Your task to perform on an android device: move an email to a new category in the gmail app Image 0: 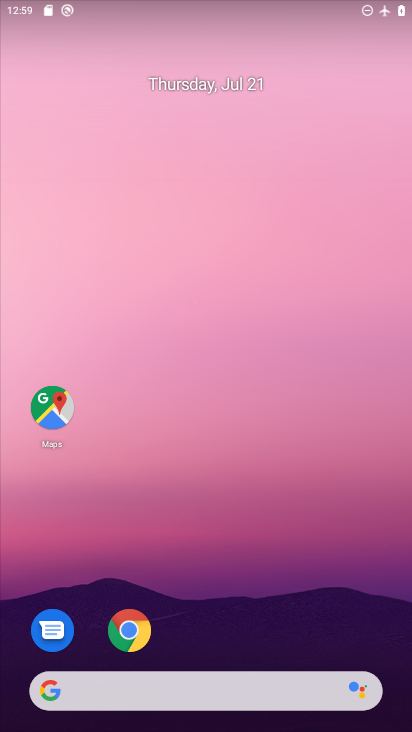
Step 0: drag from (403, 700) to (388, 67)
Your task to perform on an android device: move an email to a new category in the gmail app Image 1: 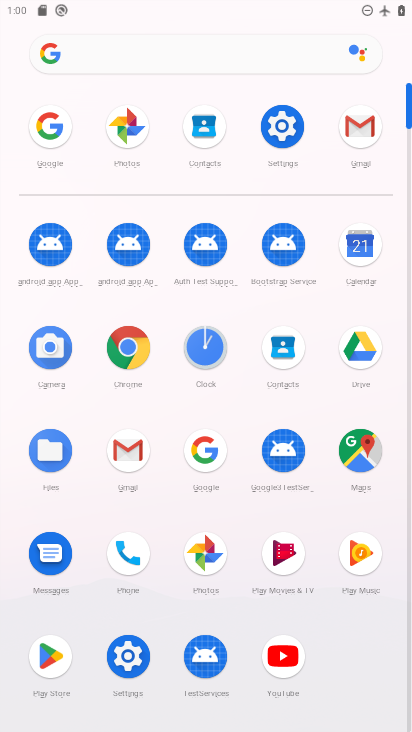
Step 1: click (121, 456)
Your task to perform on an android device: move an email to a new category in the gmail app Image 2: 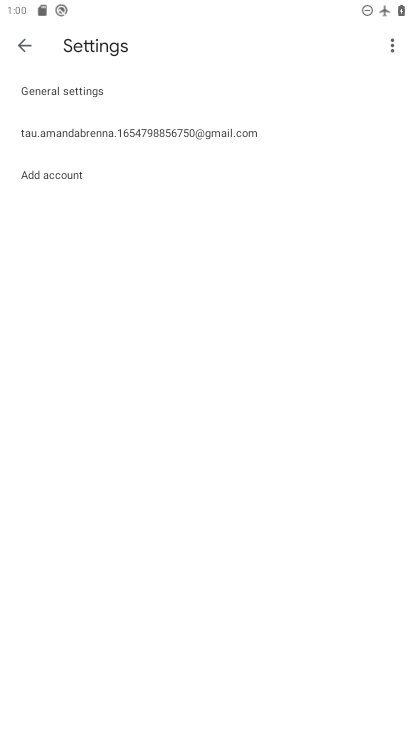
Step 2: click (150, 131)
Your task to perform on an android device: move an email to a new category in the gmail app Image 3: 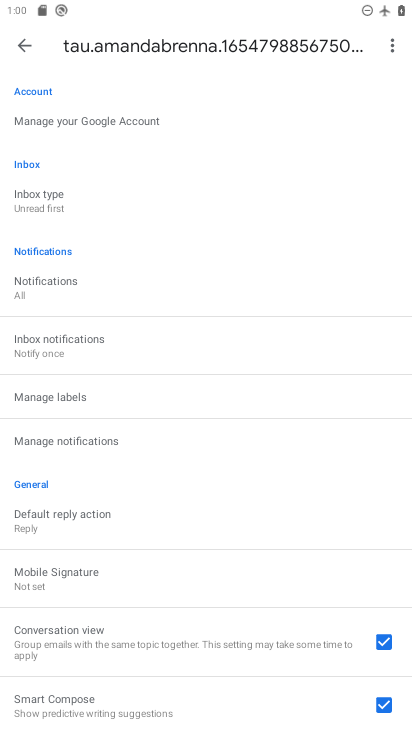
Step 3: click (29, 42)
Your task to perform on an android device: move an email to a new category in the gmail app Image 4: 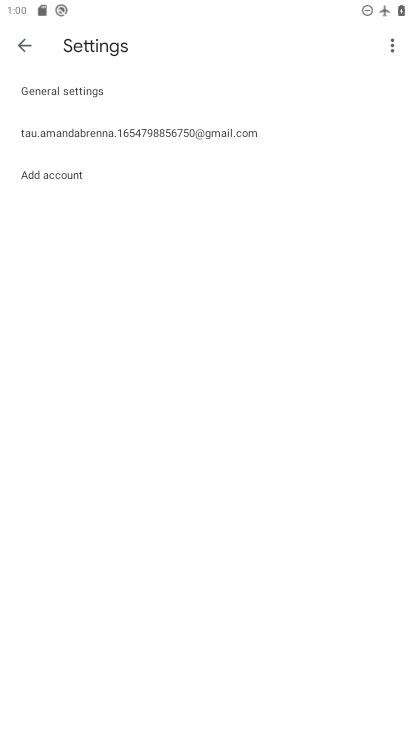
Step 4: click (29, 42)
Your task to perform on an android device: move an email to a new category in the gmail app Image 5: 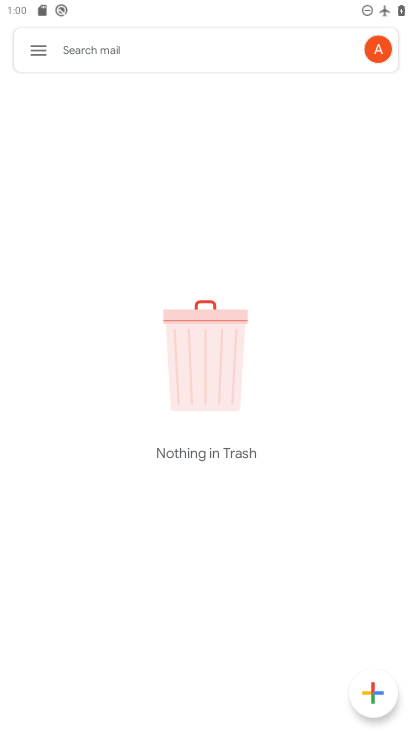
Step 5: task complete